Your task to perform on an android device: Open Google Maps and go to "Timeline" Image 0: 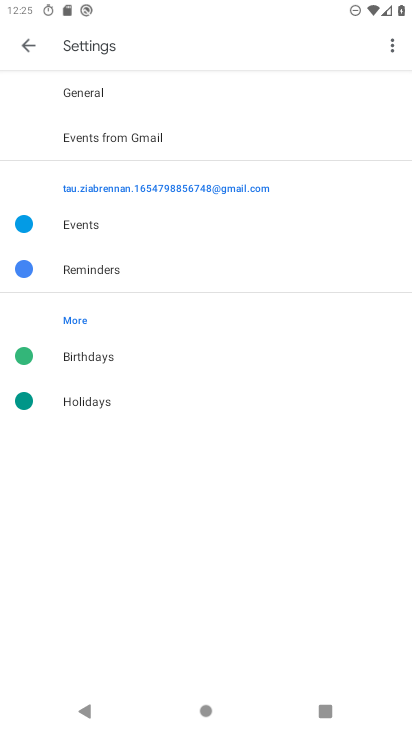
Step 0: press home button
Your task to perform on an android device: Open Google Maps and go to "Timeline" Image 1: 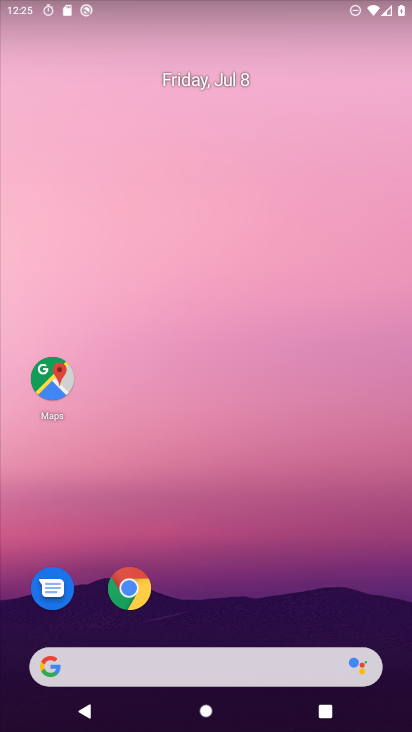
Step 1: drag from (226, 358) to (207, 109)
Your task to perform on an android device: Open Google Maps and go to "Timeline" Image 2: 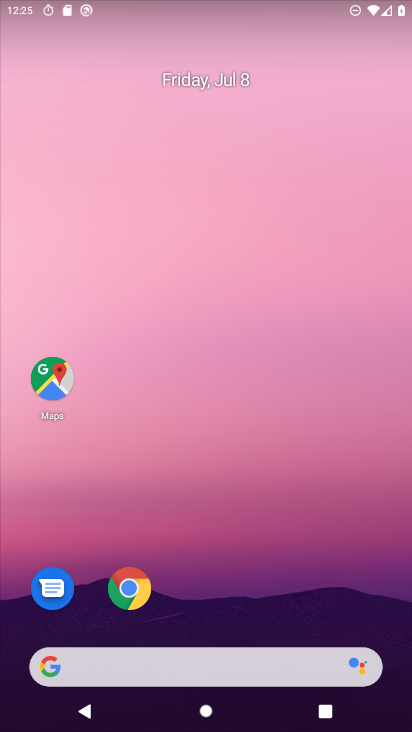
Step 2: drag from (280, 402) to (129, 7)
Your task to perform on an android device: Open Google Maps and go to "Timeline" Image 3: 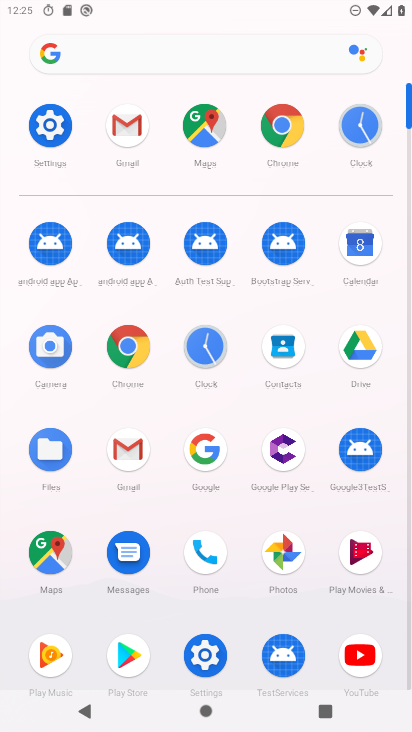
Step 3: click (52, 549)
Your task to perform on an android device: Open Google Maps and go to "Timeline" Image 4: 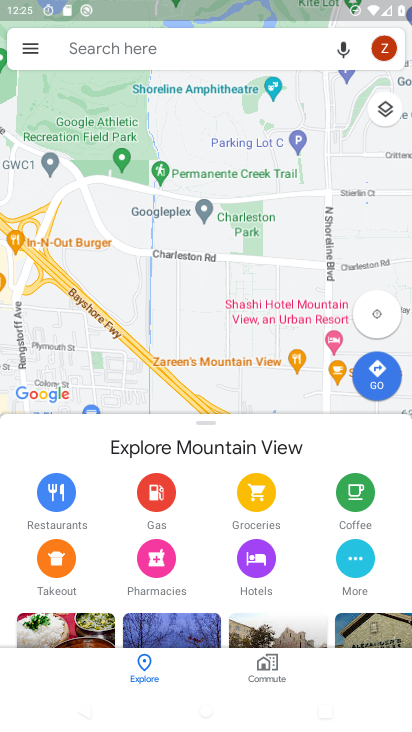
Step 4: click (31, 46)
Your task to perform on an android device: Open Google Maps and go to "Timeline" Image 5: 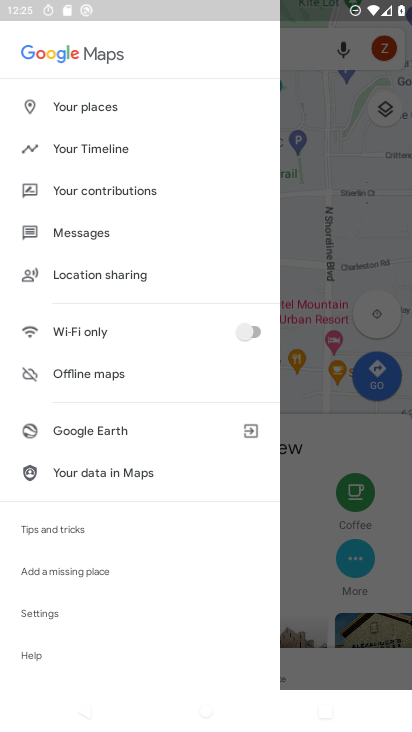
Step 5: click (93, 152)
Your task to perform on an android device: Open Google Maps and go to "Timeline" Image 6: 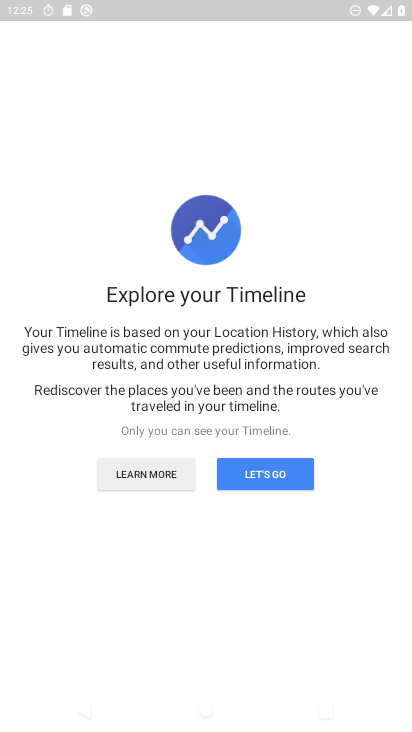
Step 6: click (260, 480)
Your task to perform on an android device: Open Google Maps and go to "Timeline" Image 7: 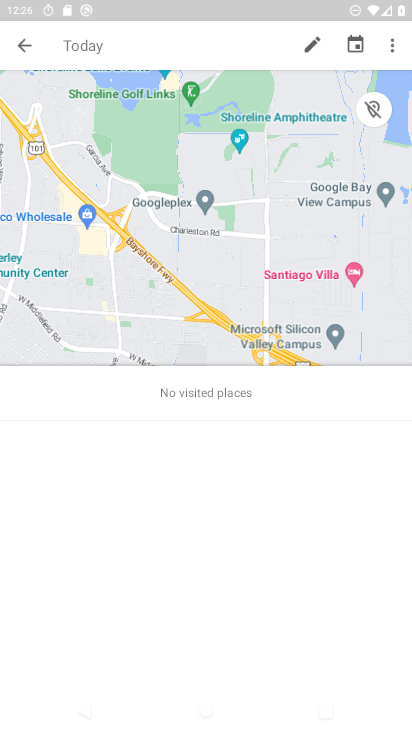
Step 7: task complete